Your task to perform on an android device: see creations saved in the google photos Image 0: 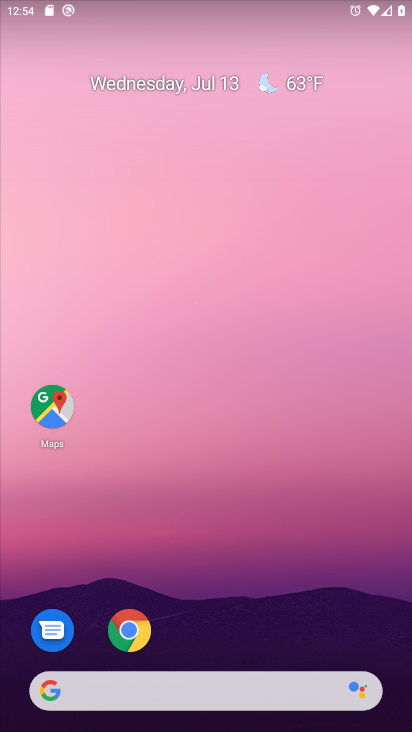
Step 0: drag from (242, 657) to (260, 294)
Your task to perform on an android device: see creations saved in the google photos Image 1: 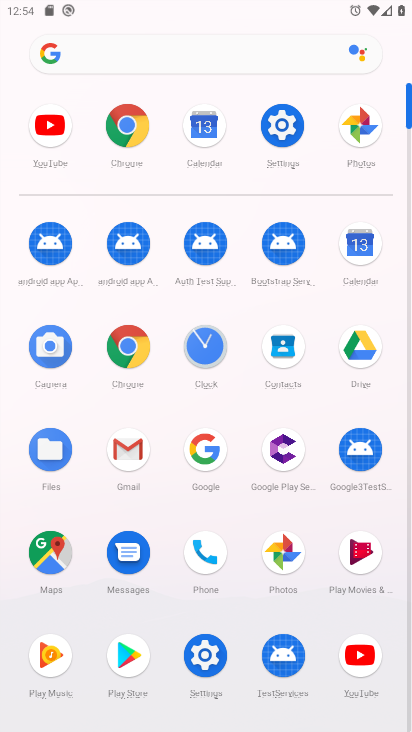
Step 1: click (278, 548)
Your task to perform on an android device: see creations saved in the google photos Image 2: 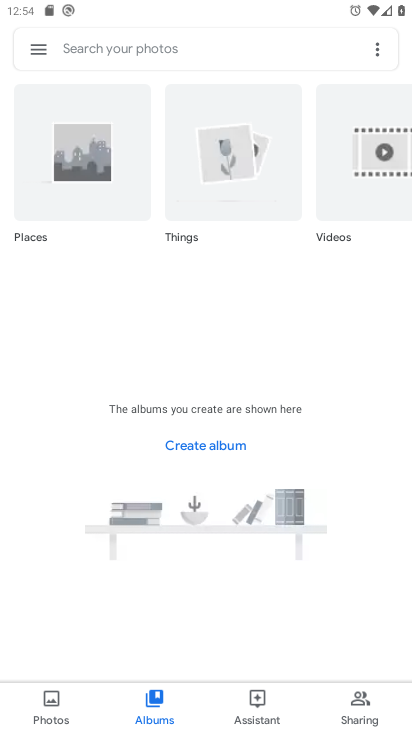
Step 2: click (248, 676)
Your task to perform on an android device: see creations saved in the google photos Image 3: 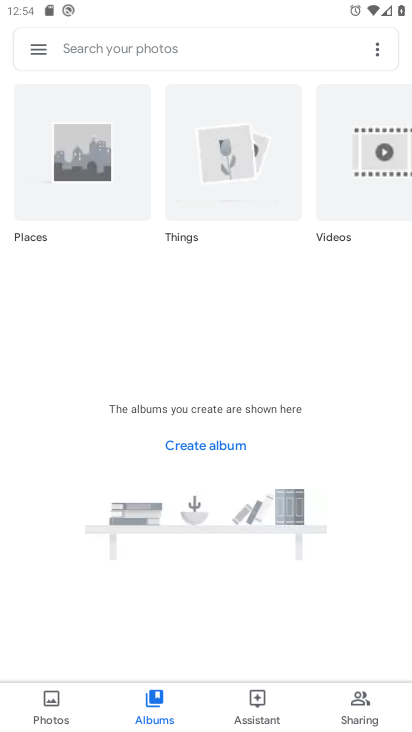
Step 3: click (257, 715)
Your task to perform on an android device: see creations saved in the google photos Image 4: 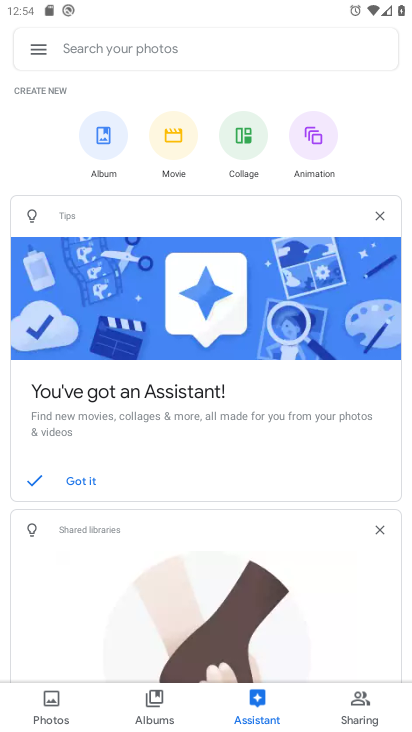
Step 4: task complete